Your task to perform on an android device: Open Google Image 0: 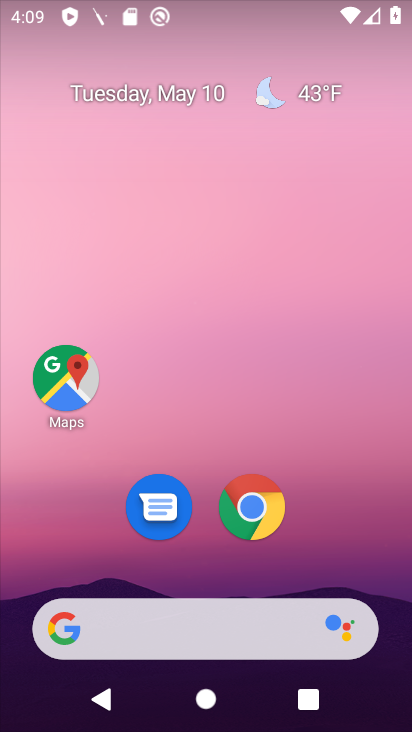
Step 0: click (249, 488)
Your task to perform on an android device: Open Google Image 1: 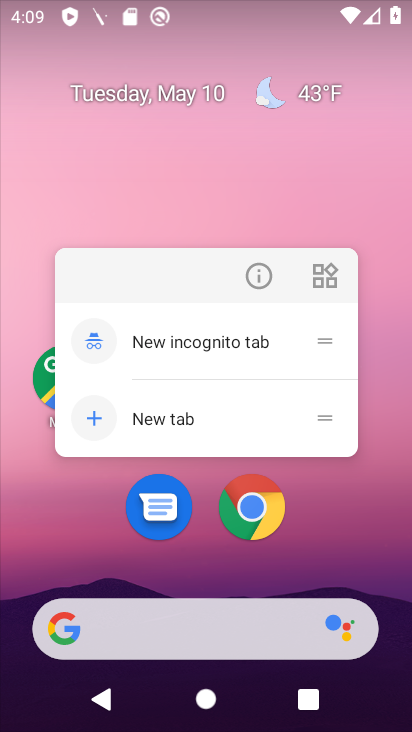
Step 1: click (249, 488)
Your task to perform on an android device: Open Google Image 2: 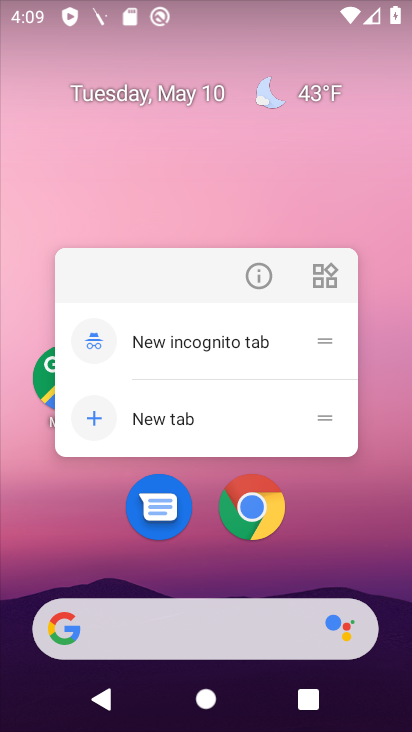
Step 2: click (249, 488)
Your task to perform on an android device: Open Google Image 3: 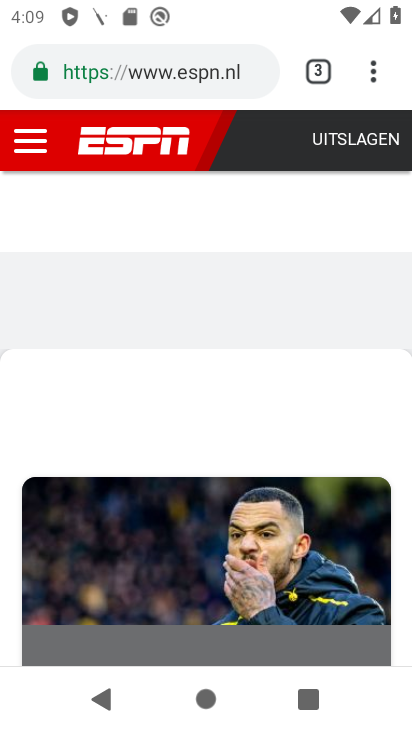
Step 3: click (378, 59)
Your task to perform on an android device: Open Google Image 4: 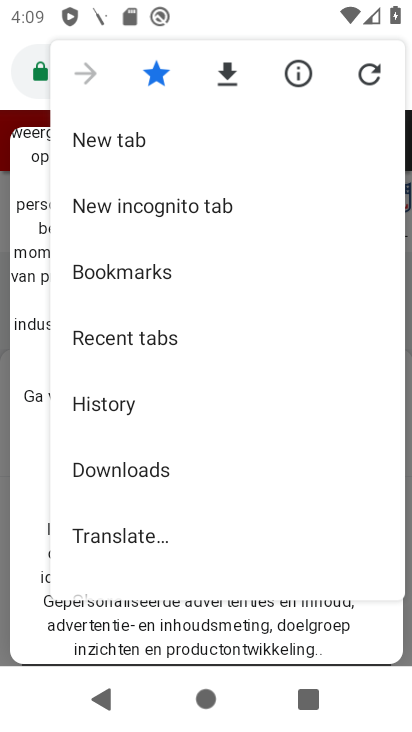
Step 4: click (188, 162)
Your task to perform on an android device: Open Google Image 5: 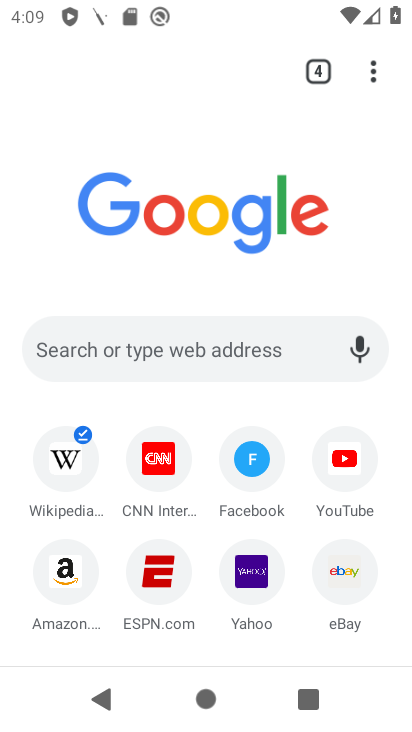
Step 5: click (185, 354)
Your task to perform on an android device: Open Google Image 6: 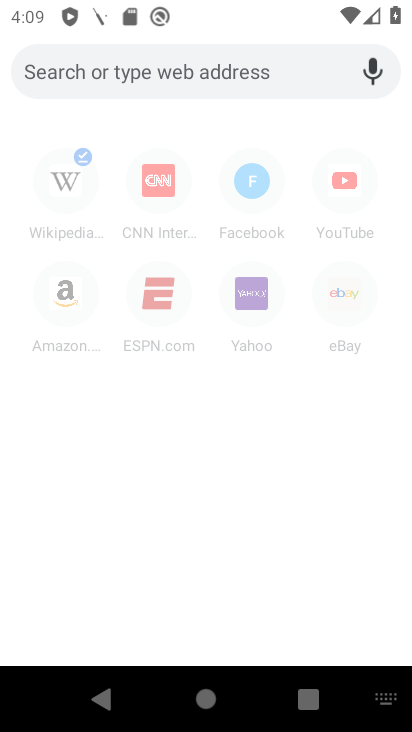
Step 6: type "google.com"
Your task to perform on an android device: Open Google Image 7: 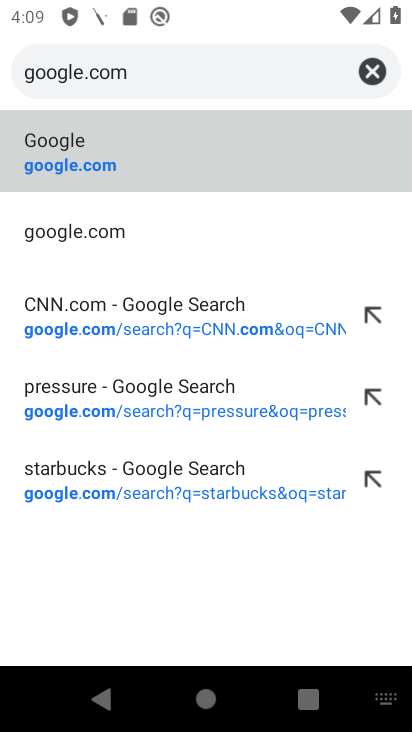
Step 7: click (154, 141)
Your task to perform on an android device: Open Google Image 8: 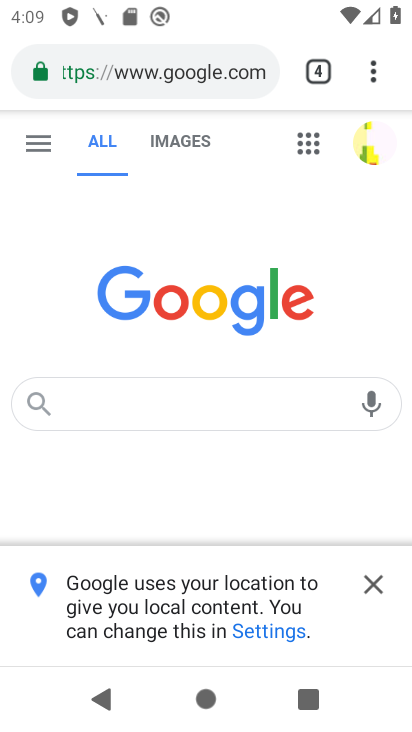
Step 8: task complete